Your task to perform on an android device: Open Google Chrome and click the shortcut for Amazon.com Image 0: 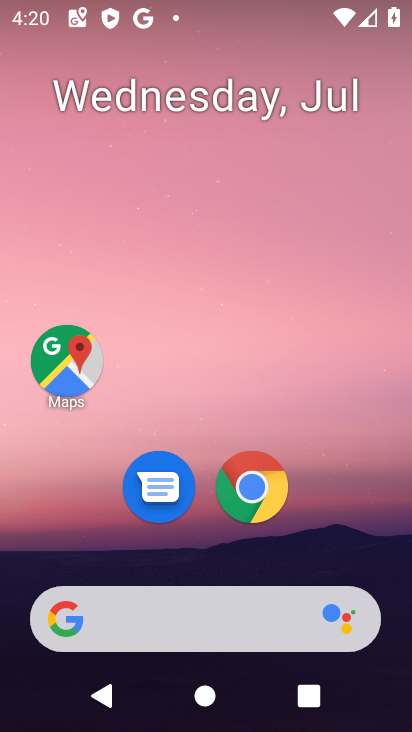
Step 0: click (238, 501)
Your task to perform on an android device: Open Google Chrome and click the shortcut for Amazon.com Image 1: 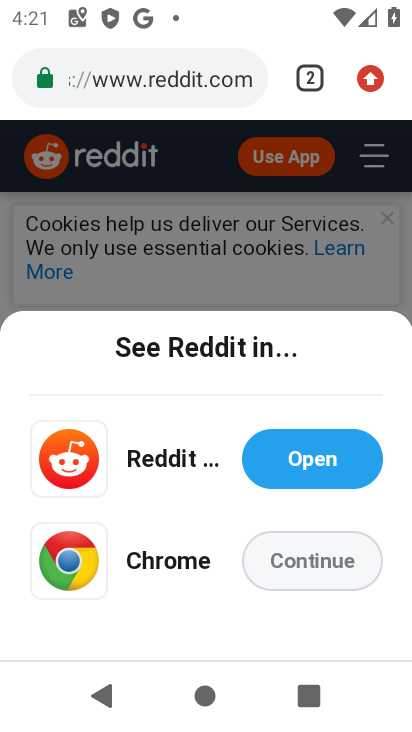
Step 1: click (311, 81)
Your task to perform on an android device: Open Google Chrome and click the shortcut for Amazon.com Image 2: 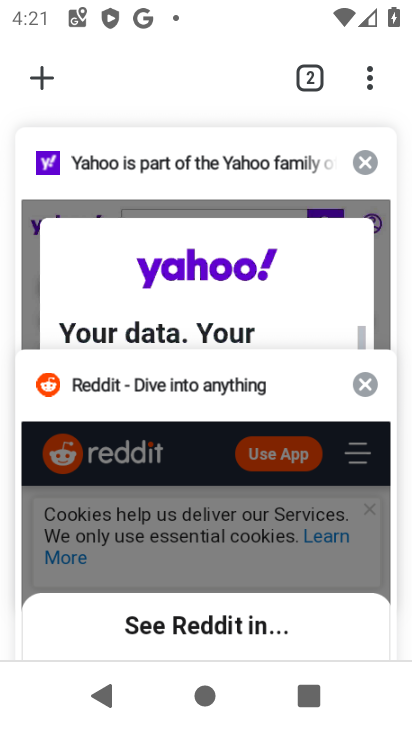
Step 2: click (39, 66)
Your task to perform on an android device: Open Google Chrome and click the shortcut for Amazon.com Image 3: 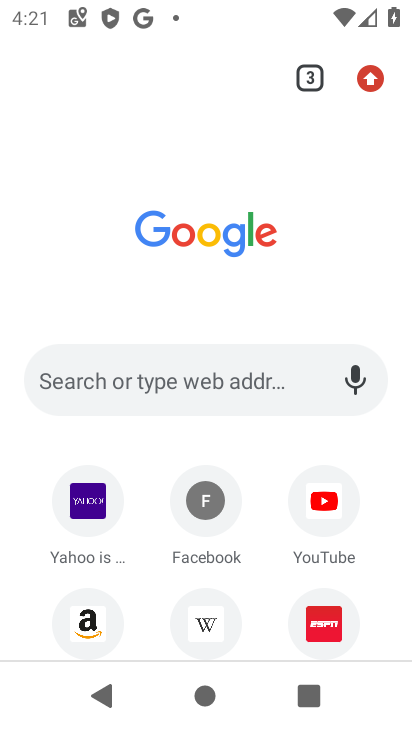
Step 3: click (102, 618)
Your task to perform on an android device: Open Google Chrome and click the shortcut for Amazon.com Image 4: 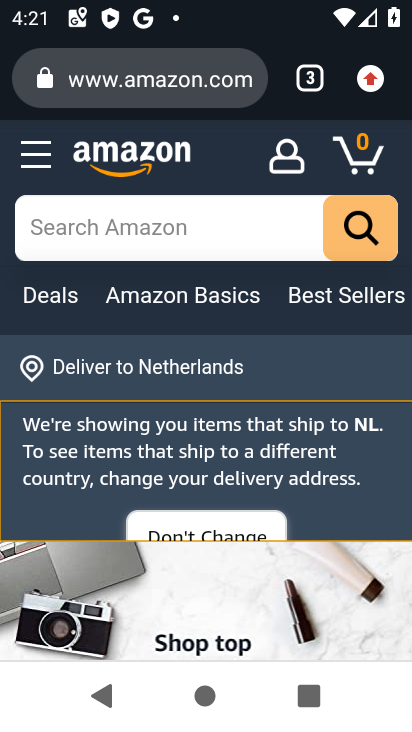
Step 4: task complete